Your task to perform on an android device: turn on showing notifications on the lock screen Image 0: 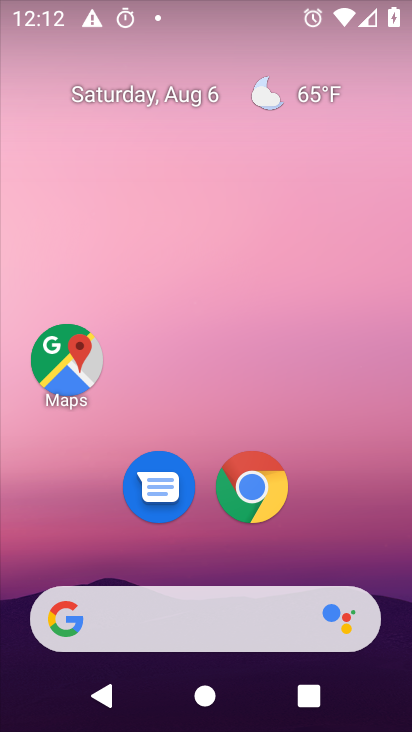
Step 0: drag from (224, 515) to (241, 23)
Your task to perform on an android device: turn on showing notifications on the lock screen Image 1: 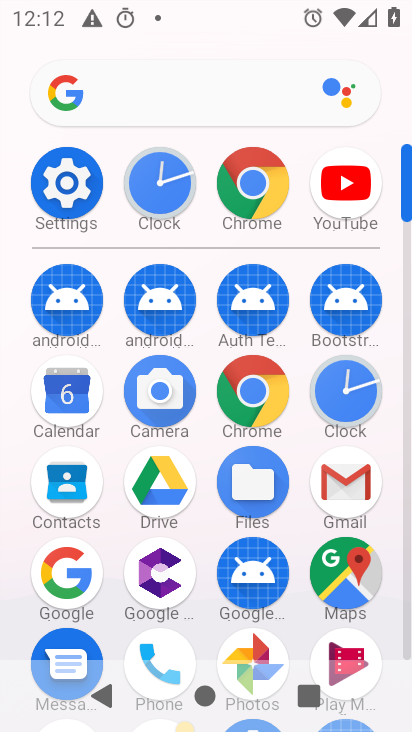
Step 1: click (60, 176)
Your task to perform on an android device: turn on showing notifications on the lock screen Image 2: 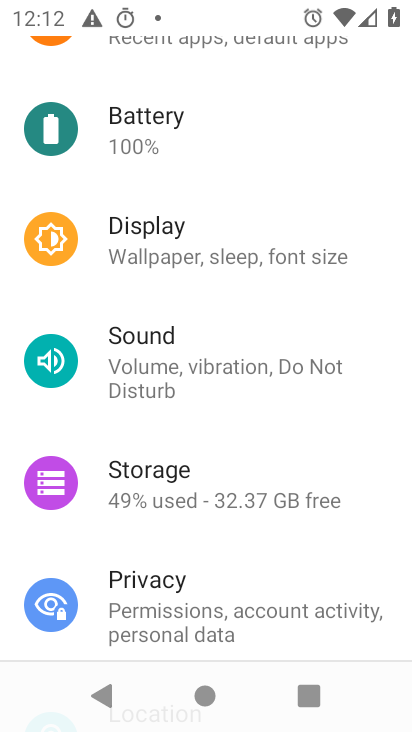
Step 2: drag from (310, 210) to (254, 588)
Your task to perform on an android device: turn on showing notifications on the lock screen Image 3: 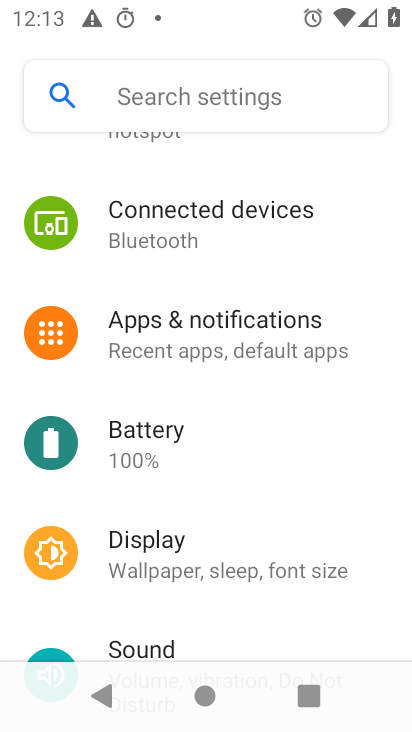
Step 3: click (289, 325)
Your task to perform on an android device: turn on showing notifications on the lock screen Image 4: 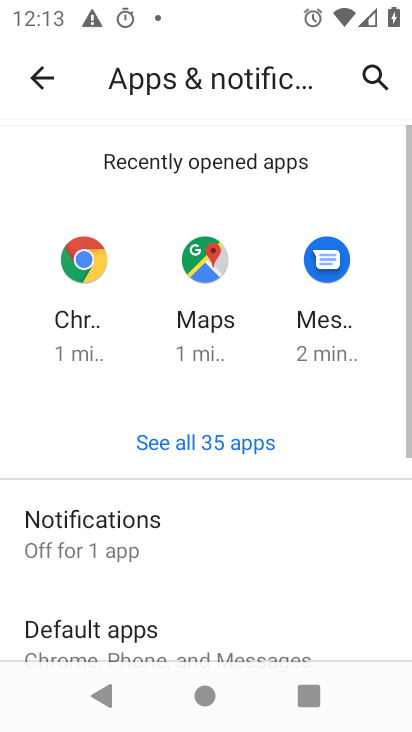
Step 4: click (164, 535)
Your task to perform on an android device: turn on showing notifications on the lock screen Image 5: 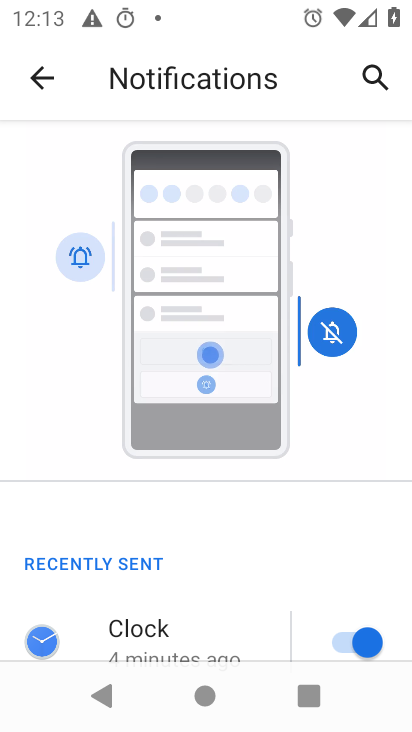
Step 5: drag from (191, 598) to (278, 102)
Your task to perform on an android device: turn on showing notifications on the lock screen Image 6: 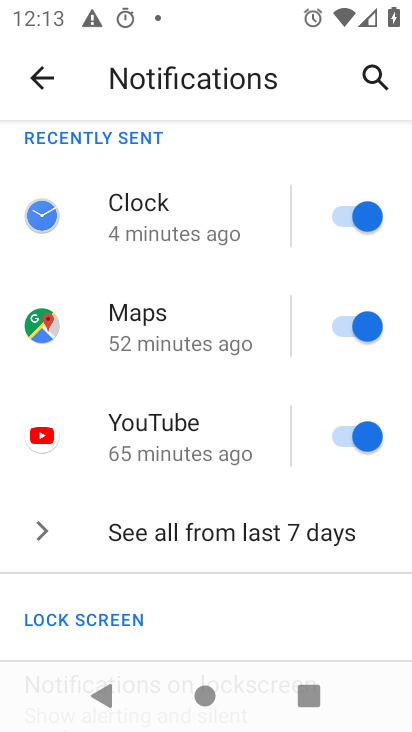
Step 6: drag from (166, 512) to (232, 155)
Your task to perform on an android device: turn on showing notifications on the lock screen Image 7: 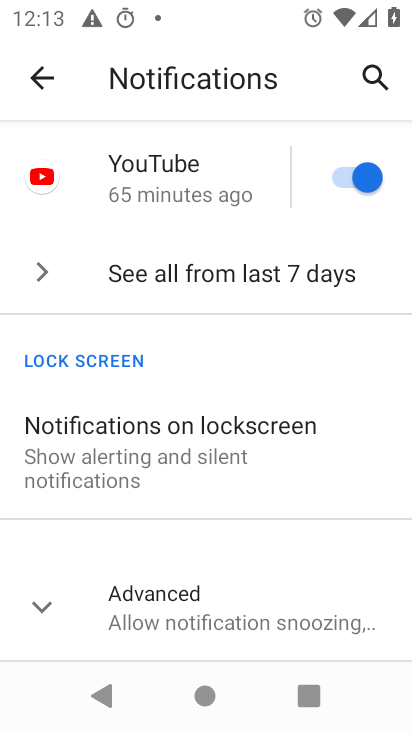
Step 7: click (177, 452)
Your task to perform on an android device: turn on showing notifications on the lock screen Image 8: 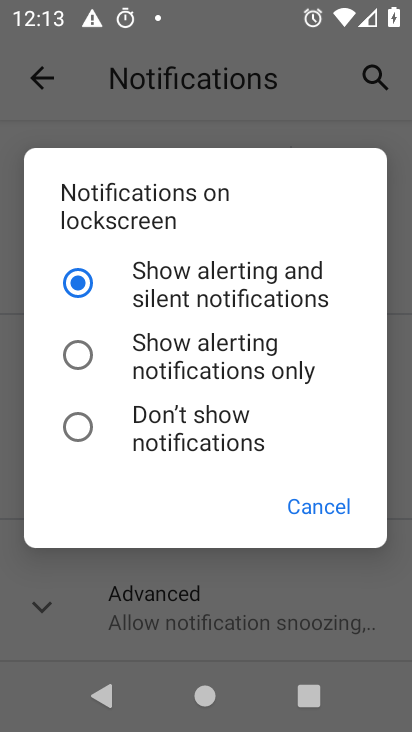
Step 8: task complete